Your task to perform on an android device: change the clock display to digital Image 0: 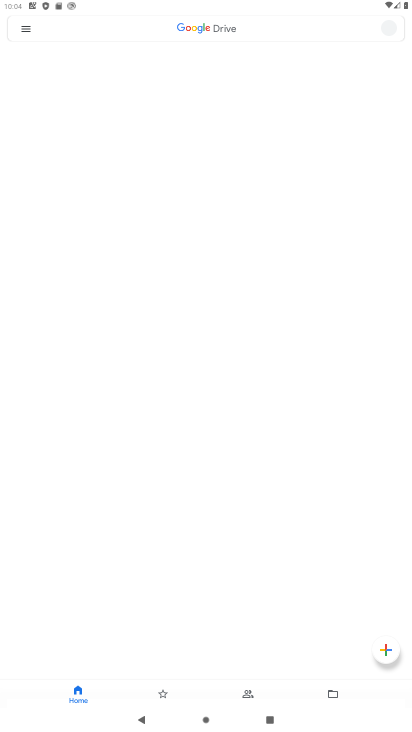
Step 0: drag from (195, 682) to (194, 537)
Your task to perform on an android device: change the clock display to digital Image 1: 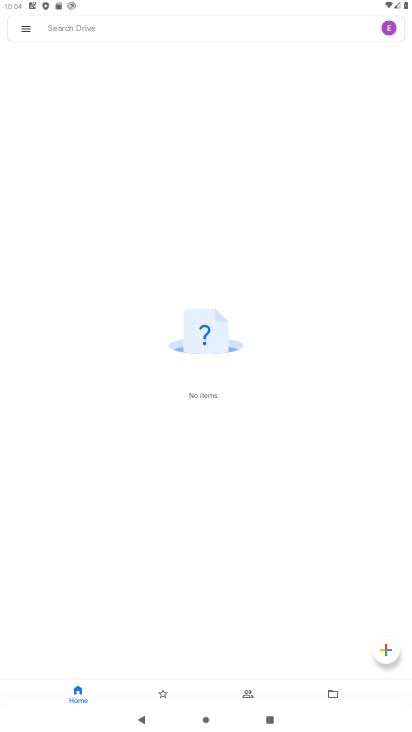
Step 1: press home button
Your task to perform on an android device: change the clock display to digital Image 2: 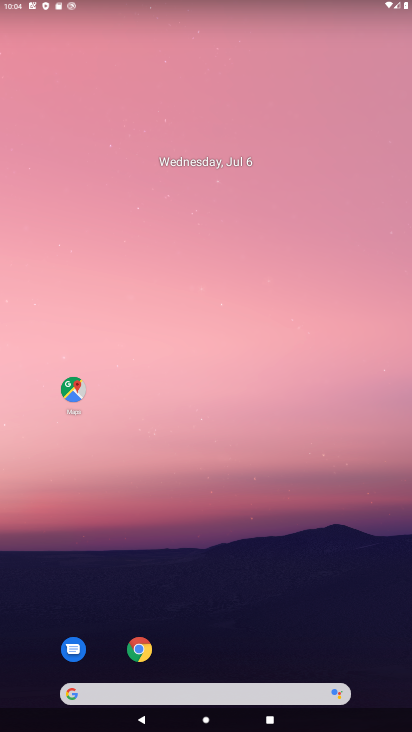
Step 2: press home button
Your task to perform on an android device: change the clock display to digital Image 3: 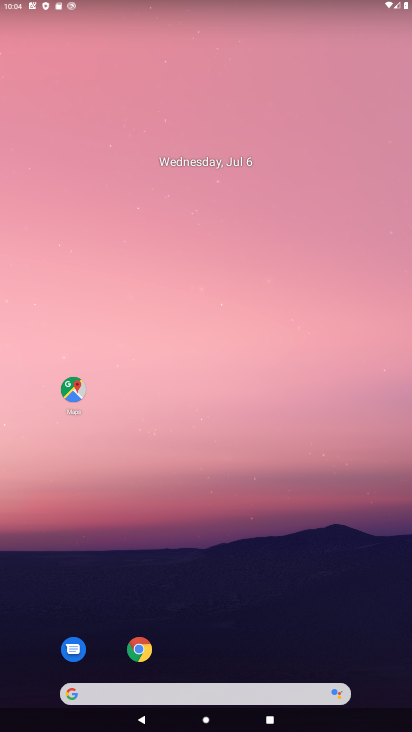
Step 3: click (204, 682)
Your task to perform on an android device: change the clock display to digital Image 4: 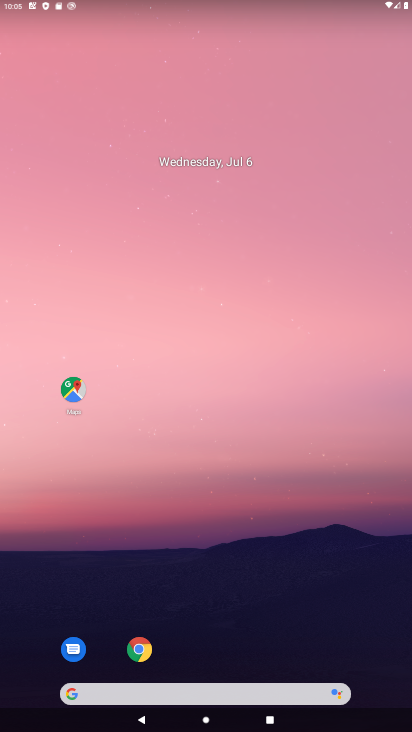
Step 4: click (201, 649)
Your task to perform on an android device: change the clock display to digital Image 5: 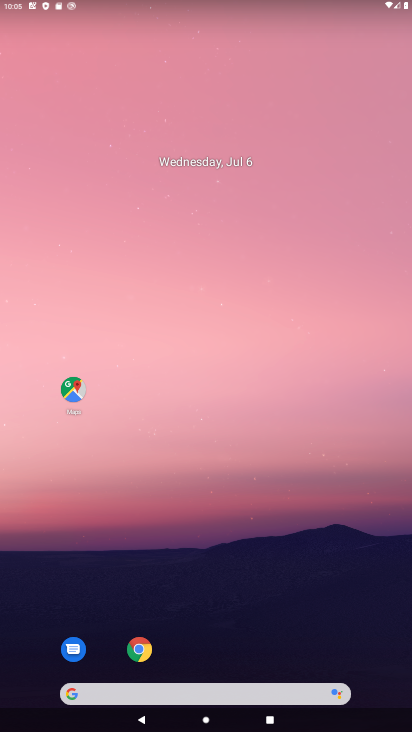
Step 5: click (201, 649)
Your task to perform on an android device: change the clock display to digital Image 6: 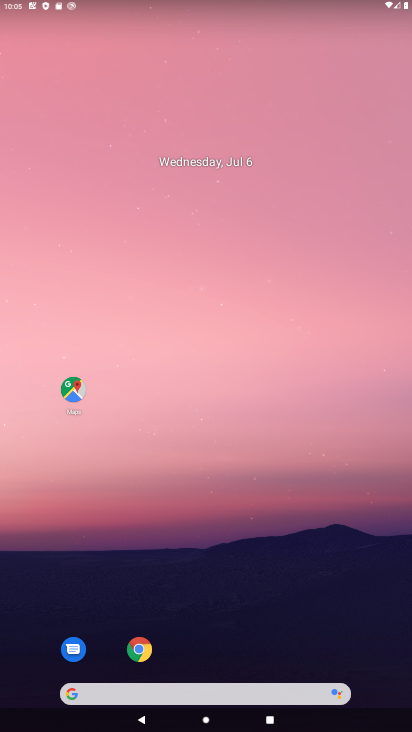
Step 6: drag from (200, 686) to (194, 334)
Your task to perform on an android device: change the clock display to digital Image 7: 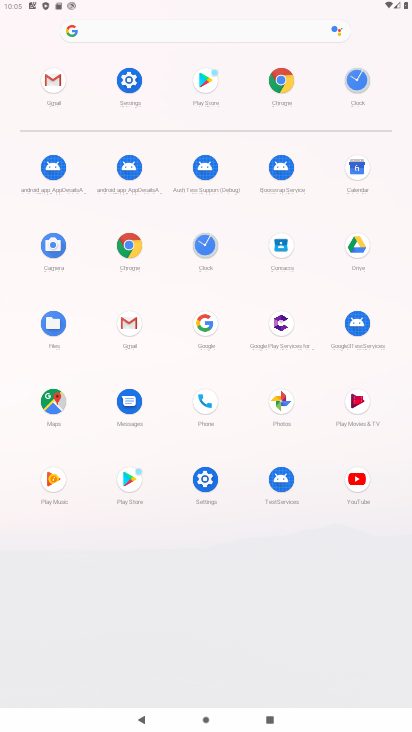
Step 7: click (343, 90)
Your task to perform on an android device: change the clock display to digital Image 8: 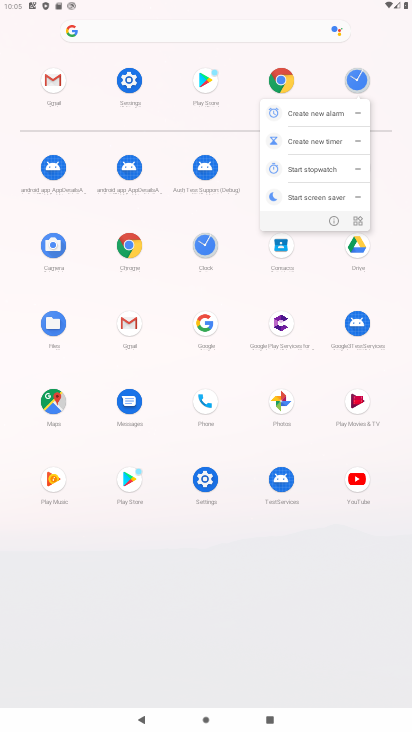
Step 8: click (357, 82)
Your task to perform on an android device: change the clock display to digital Image 9: 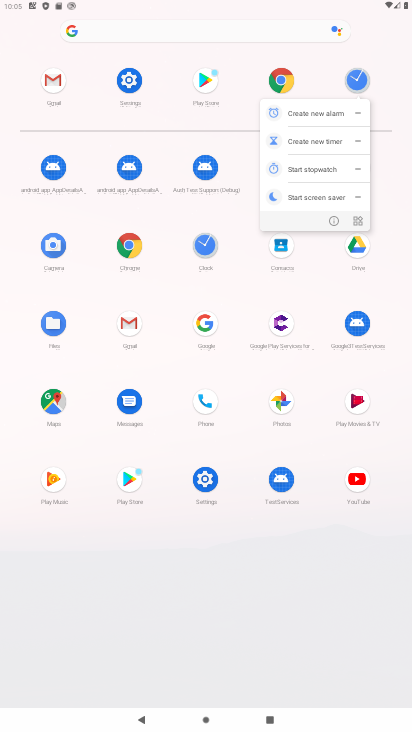
Step 9: click (357, 82)
Your task to perform on an android device: change the clock display to digital Image 10: 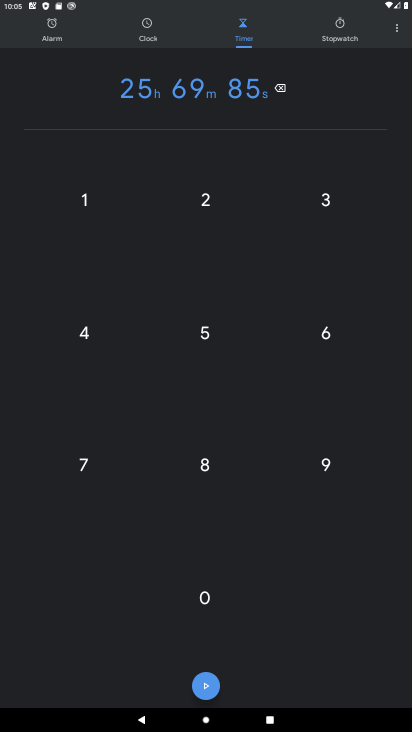
Step 10: click (404, 35)
Your task to perform on an android device: change the clock display to digital Image 11: 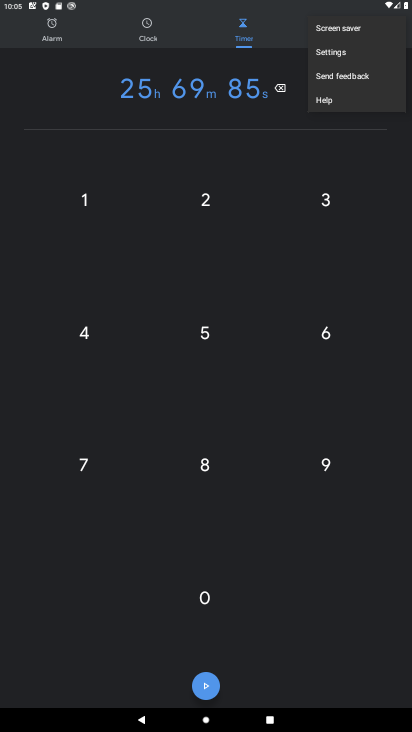
Step 11: click (338, 54)
Your task to perform on an android device: change the clock display to digital Image 12: 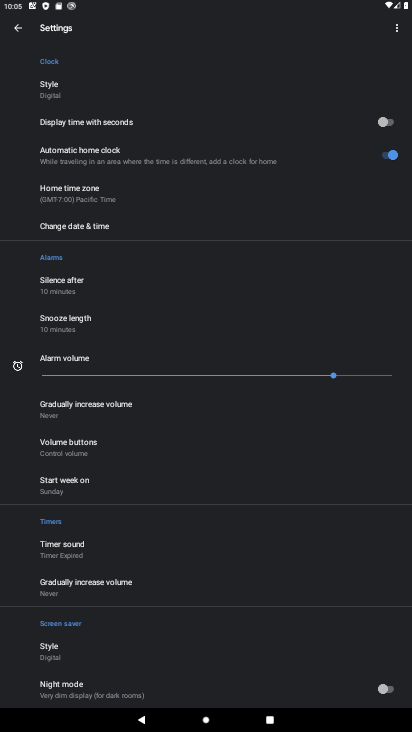
Step 12: click (116, 86)
Your task to perform on an android device: change the clock display to digital Image 13: 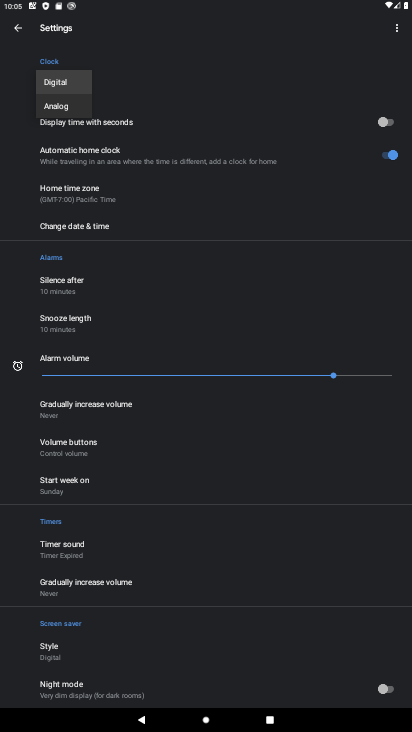
Step 13: click (71, 92)
Your task to perform on an android device: change the clock display to digital Image 14: 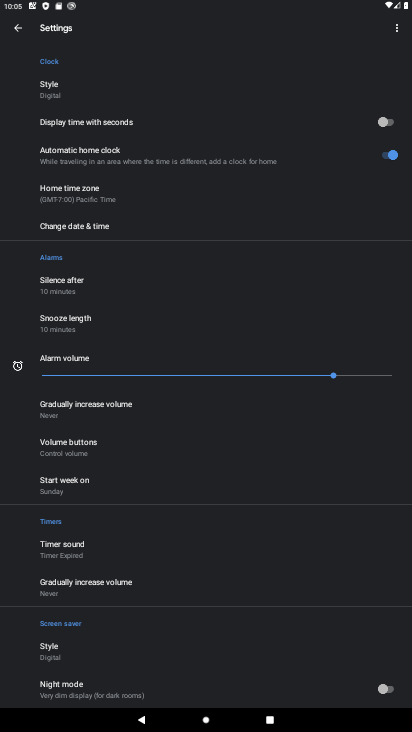
Step 14: task complete